Your task to perform on an android device: all mails in gmail Image 0: 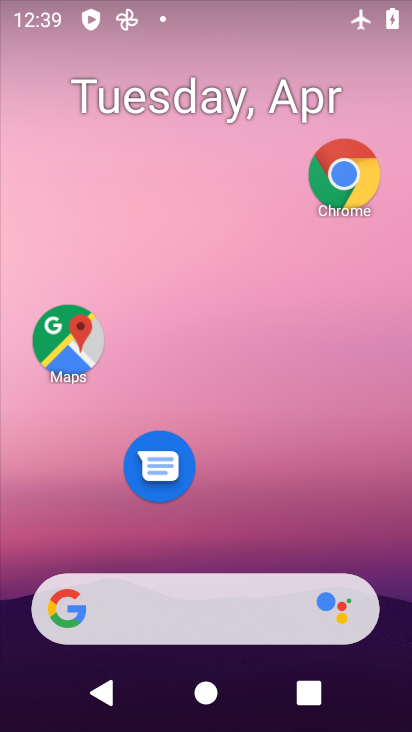
Step 0: drag from (159, 159) to (159, 95)
Your task to perform on an android device: all mails in gmail Image 1: 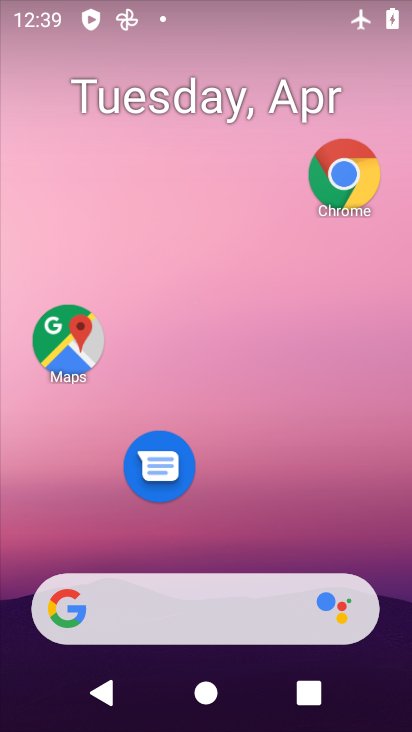
Step 1: drag from (218, 499) to (185, 5)
Your task to perform on an android device: all mails in gmail Image 2: 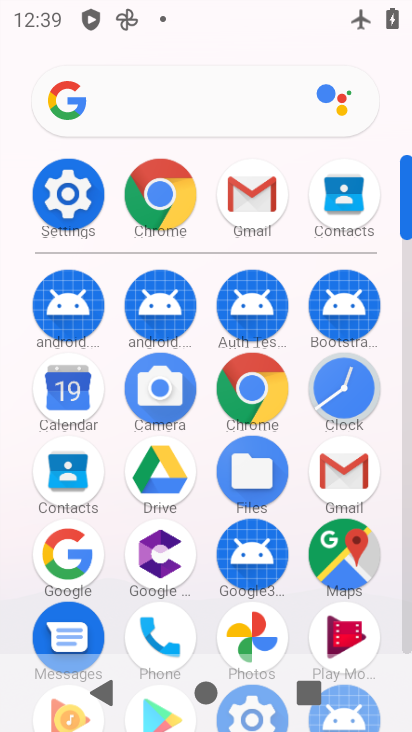
Step 2: click (319, 486)
Your task to perform on an android device: all mails in gmail Image 3: 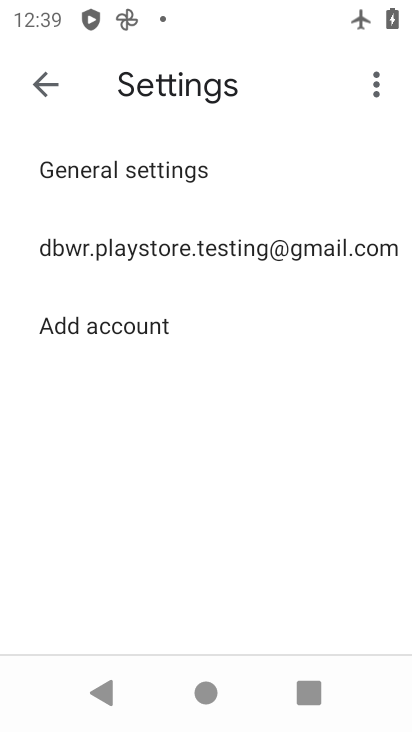
Step 3: click (44, 82)
Your task to perform on an android device: all mails in gmail Image 4: 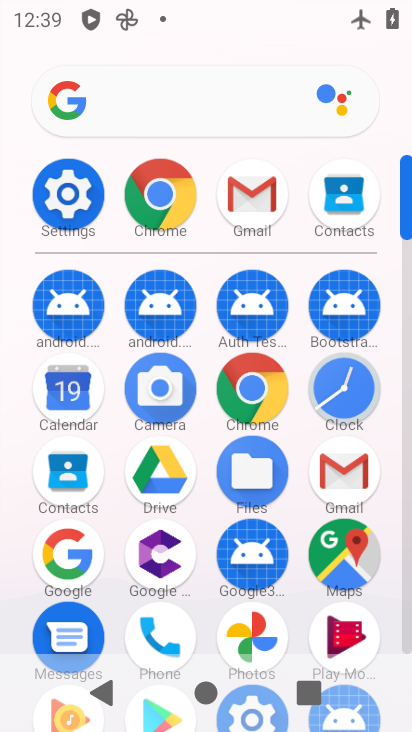
Step 4: click (332, 469)
Your task to perform on an android device: all mails in gmail Image 5: 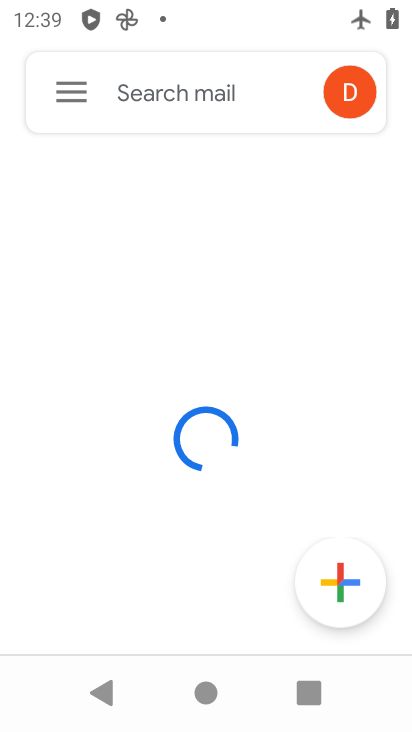
Step 5: click (54, 101)
Your task to perform on an android device: all mails in gmail Image 6: 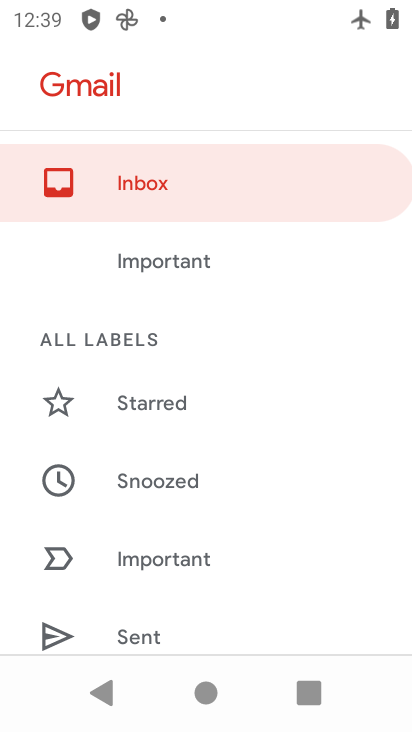
Step 6: drag from (160, 528) to (192, 131)
Your task to perform on an android device: all mails in gmail Image 7: 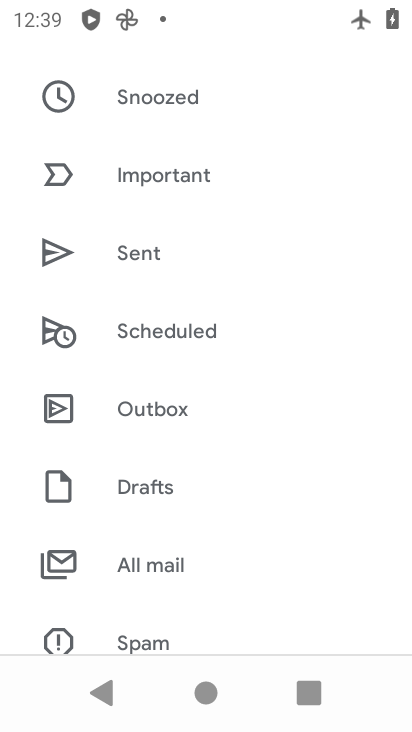
Step 7: click (196, 559)
Your task to perform on an android device: all mails in gmail Image 8: 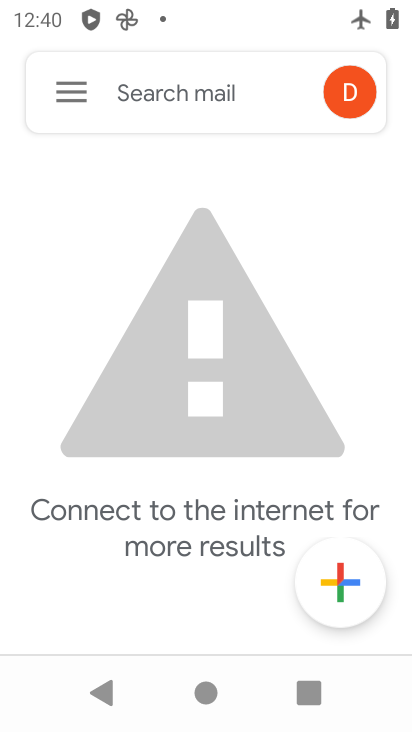
Step 8: task complete